Your task to perform on an android device: Open internet settings Image 0: 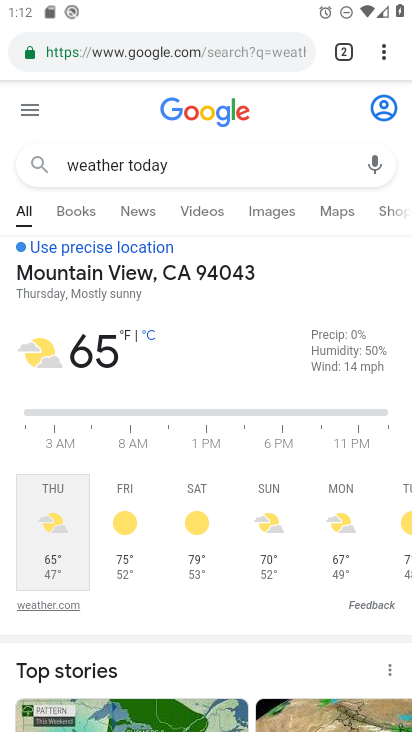
Step 0: press home button
Your task to perform on an android device: Open internet settings Image 1: 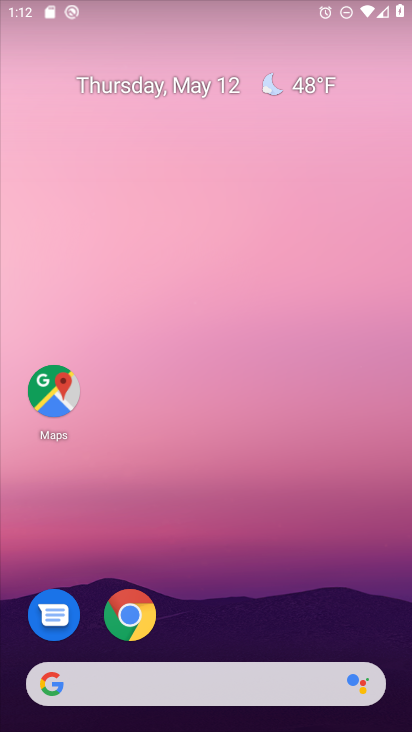
Step 1: drag from (250, 639) to (285, 7)
Your task to perform on an android device: Open internet settings Image 2: 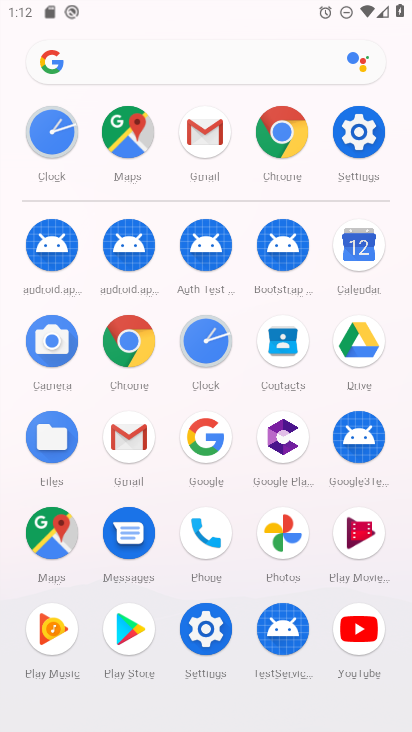
Step 2: click (350, 129)
Your task to perform on an android device: Open internet settings Image 3: 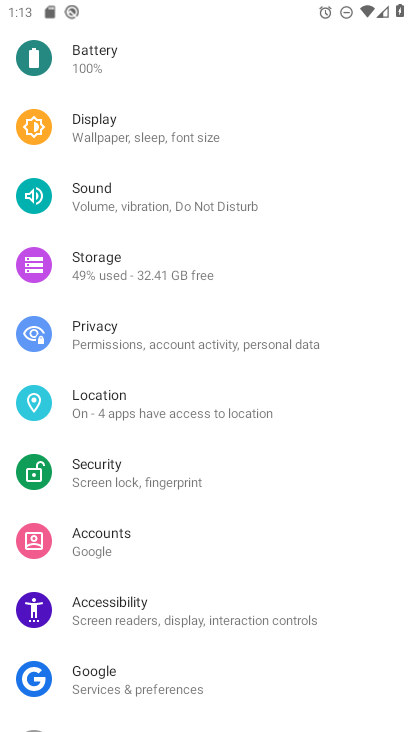
Step 3: drag from (230, 124) to (234, 719)
Your task to perform on an android device: Open internet settings Image 4: 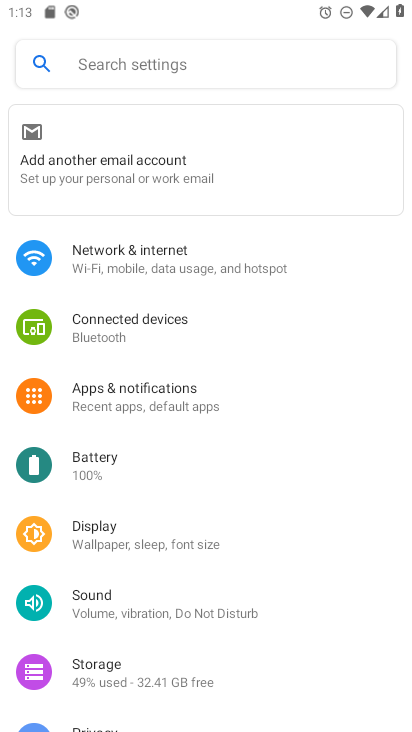
Step 4: click (238, 253)
Your task to perform on an android device: Open internet settings Image 5: 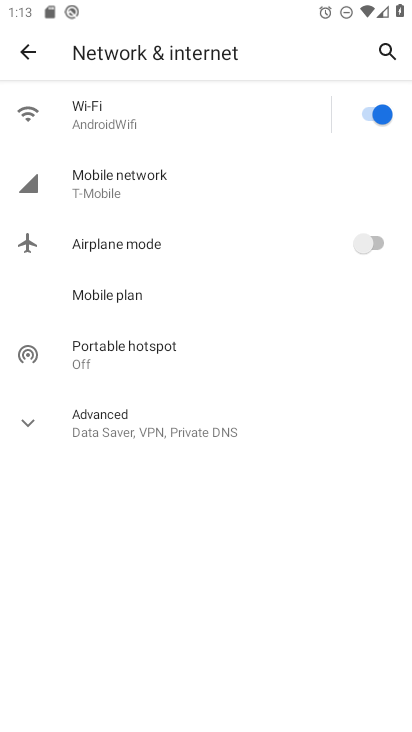
Step 5: task complete